Your task to perform on an android device: clear all cookies in the chrome app Image 0: 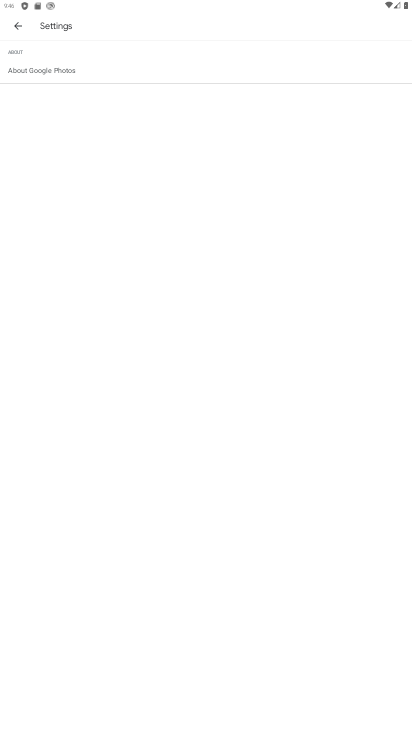
Step 0: press home button
Your task to perform on an android device: clear all cookies in the chrome app Image 1: 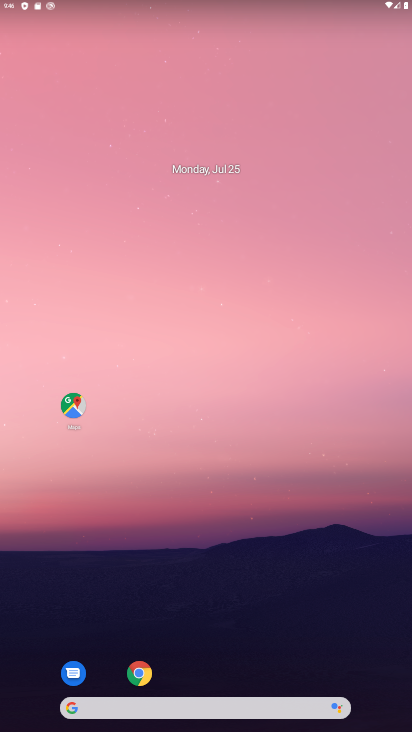
Step 1: drag from (249, 678) to (269, 5)
Your task to perform on an android device: clear all cookies in the chrome app Image 2: 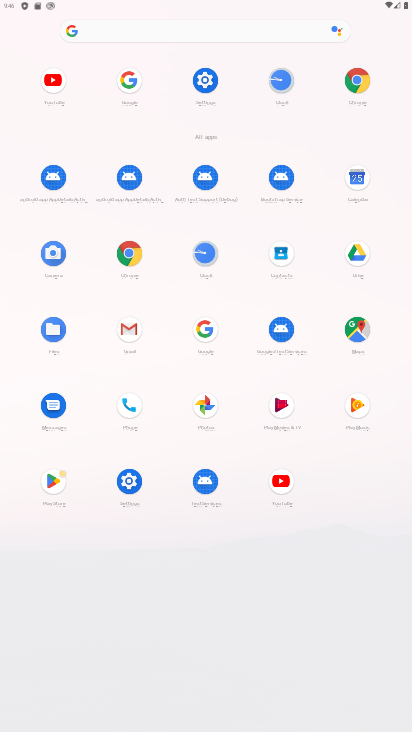
Step 2: click (125, 239)
Your task to perform on an android device: clear all cookies in the chrome app Image 3: 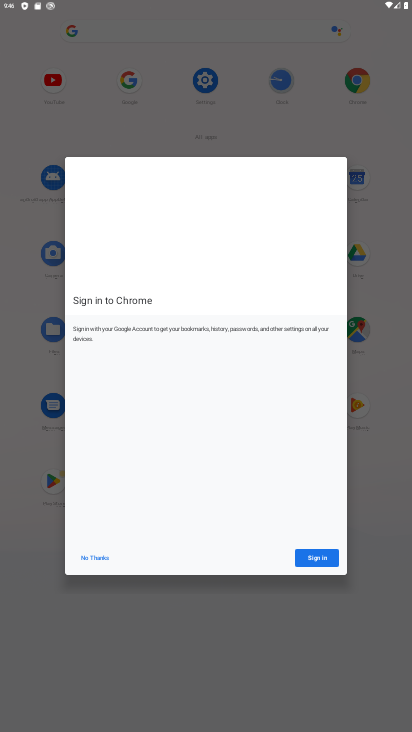
Step 3: click (325, 556)
Your task to perform on an android device: clear all cookies in the chrome app Image 4: 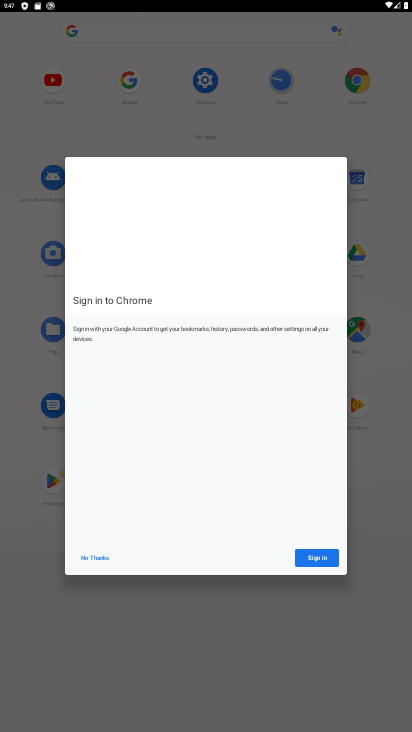
Step 4: task complete